Your task to perform on an android device: Go to Android settings Image 0: 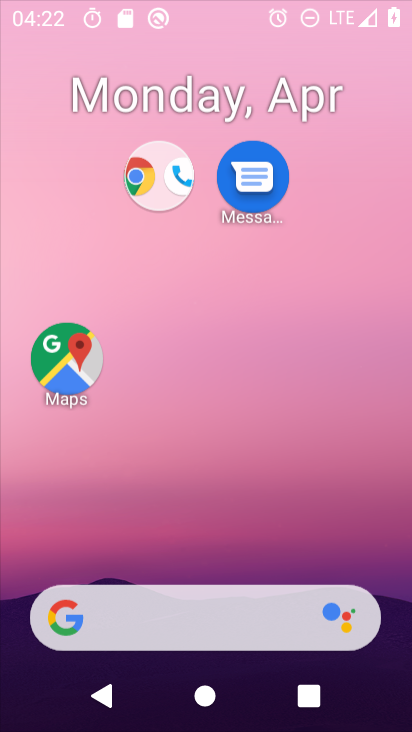
Step 0: drag from (263, 128) to (274, 34)
Your task to perform on an android device: Go to Android settings Image 1: 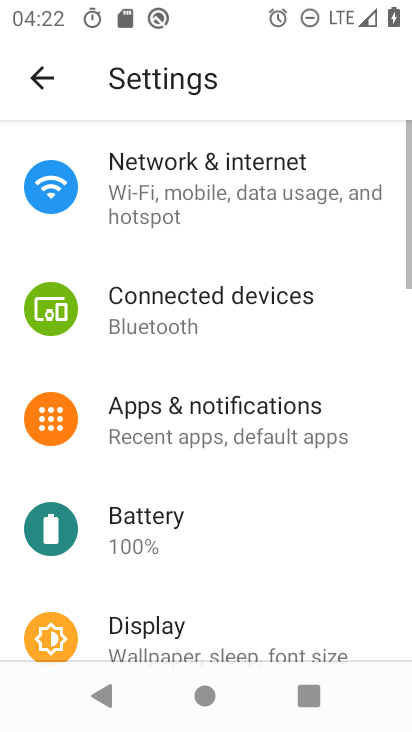
Step 1: press home button
Your task to perform on an android device: Go to Android settings Image 2: 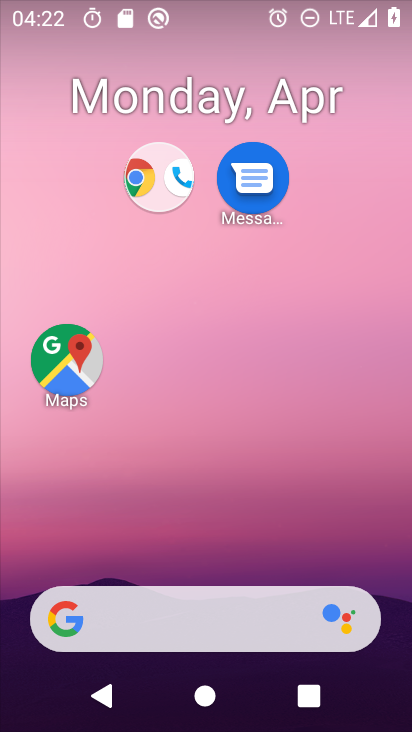
Step 2: drag from (267, 595) to (332, 5)
Your task to perform on an android device: Go to Android settings Image 3: 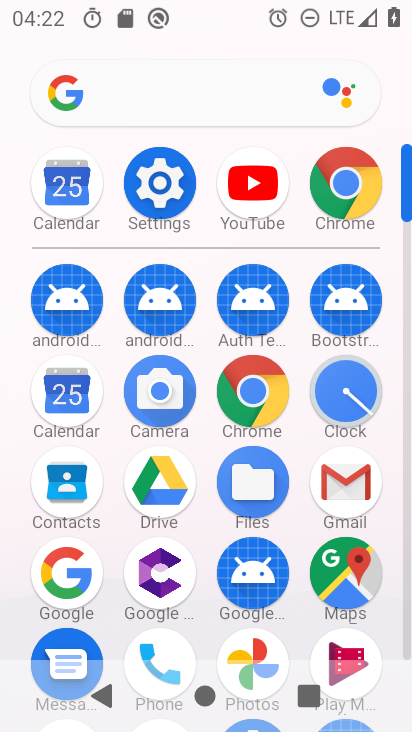
Step 3: click (269, 391)
Your task to perform on an android device: Go to Android settings Image 4: 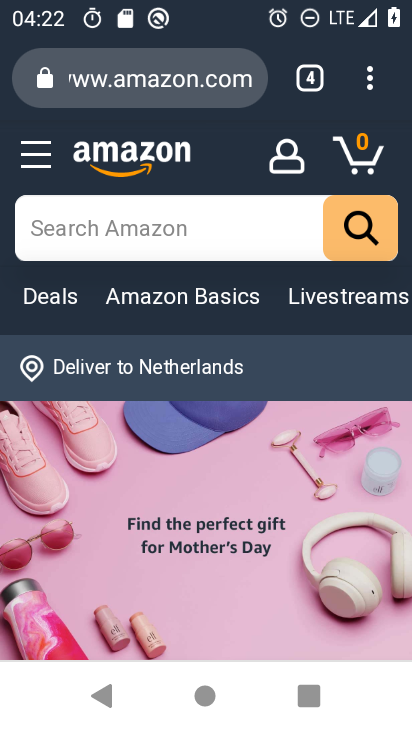
Step 4: press home button
Your task to perform on an android device: Go to Android settings Image 5: 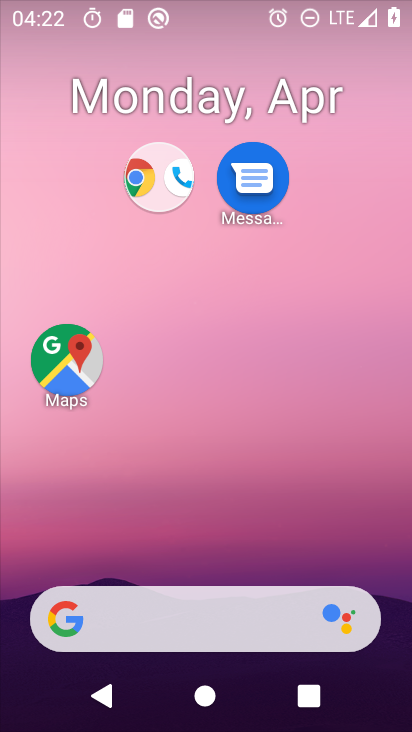
Step 5: drag from (256, 594) to (270, 53)
Your task to perform on an android device: Go to Android settings Image 6: 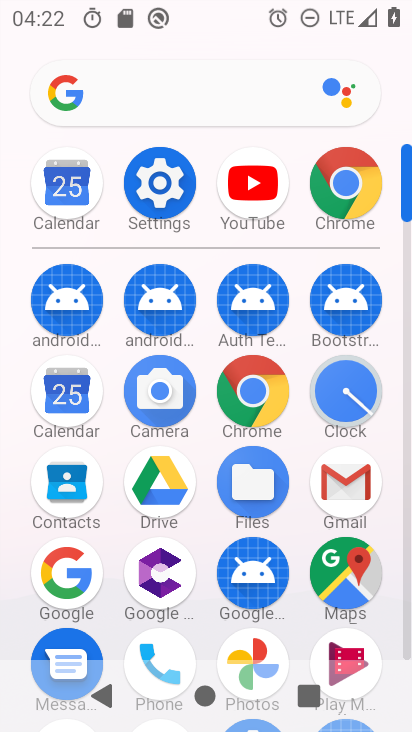
Step 6: drag from (290, 618) to (288, 71)
Your task to perform on an android device: Go to Android settings Image 7: 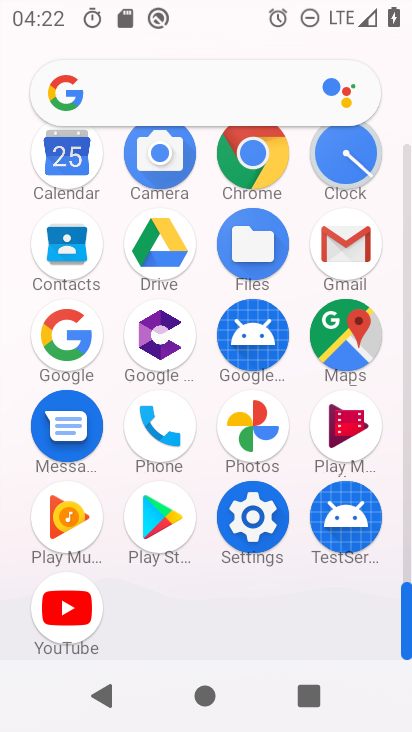
Step 7: click (255, 513)
Your task to perform on an android device: Go to Android settings Image 8: 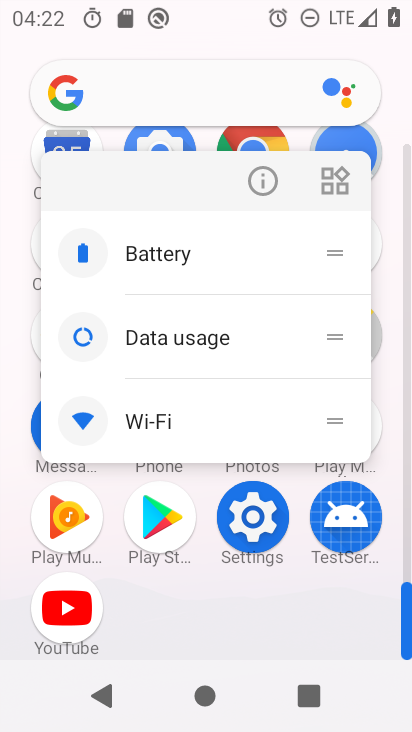
Step 8: click (255, 513)
Your task to perform on an android device: Go to Android settings Image 9: 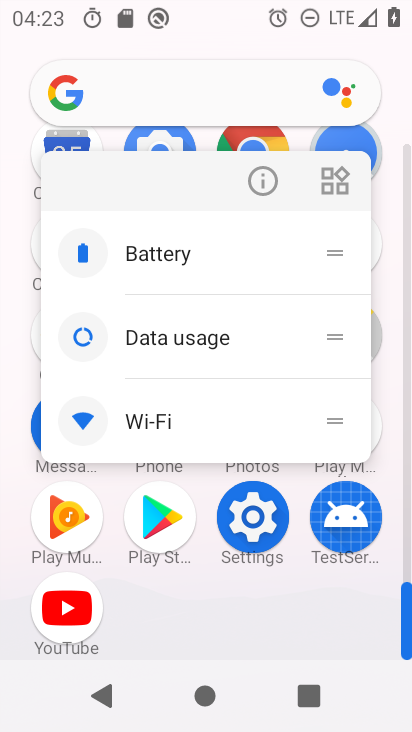
Step 9: click (255, 513)
Your task to perform on an android device: Go to Android settings Image 10: 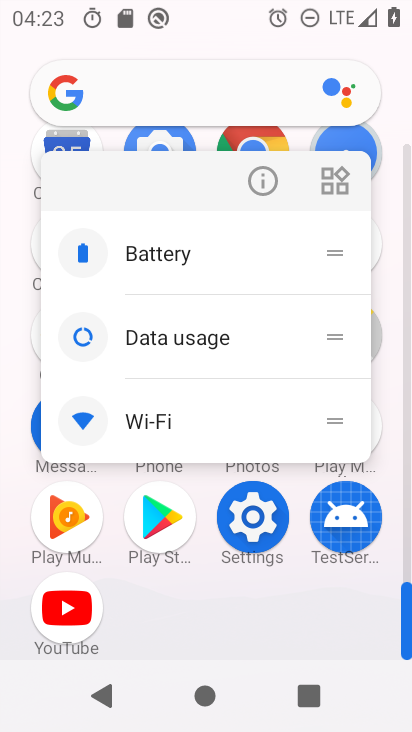
Step 10: click (255, 513)
Your task to perform on an android device: Go to Android settings Image 11: 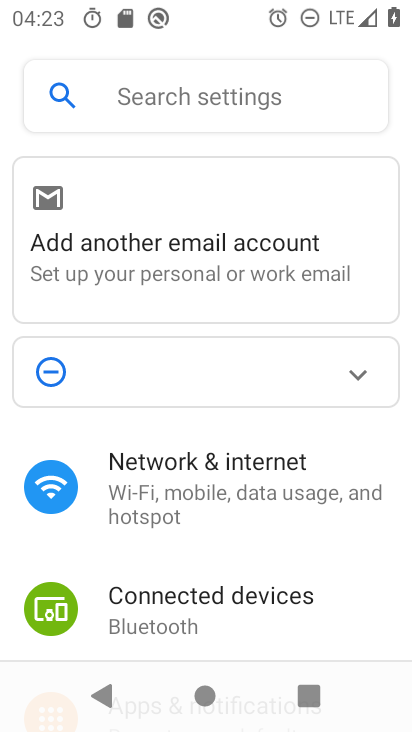
Step 11: drag from (225, 615) to (287, 57)
Your task to perform on an android device: Go to Android settings Image 12: 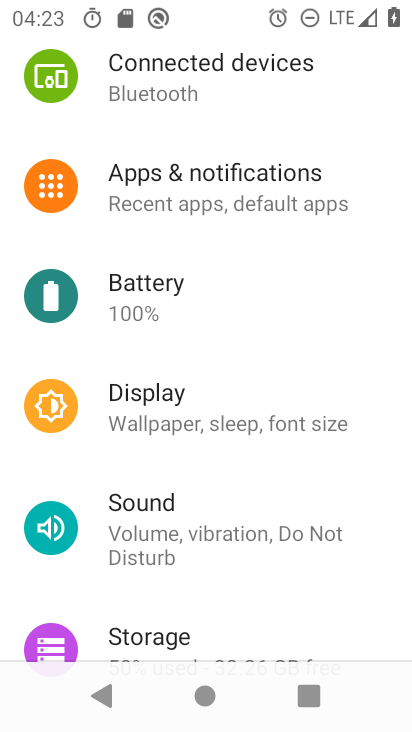
Step 12: drag from (294, 616) to (331, 90)
Your task to perform on an android device: Go to Android settings Image 13: 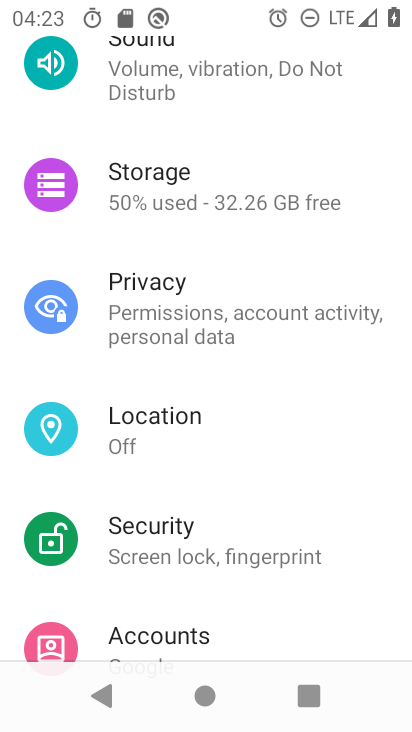
Step 13: drag from (254, 633) to (293, 29)
Your task to perform on an android device: Go to Android settings Image 14: 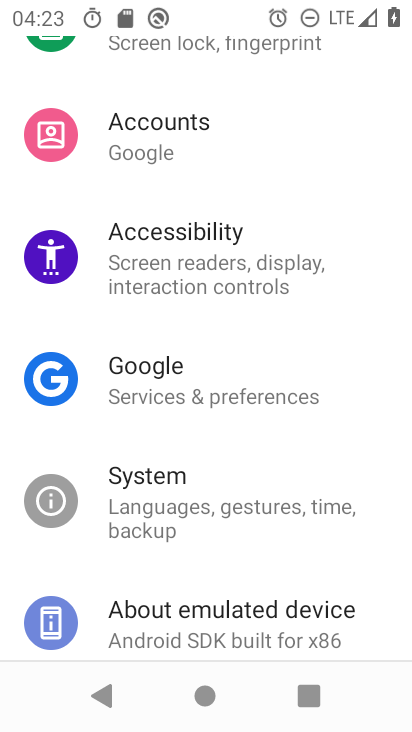
Step 14: click (255, 618)
Your task to perform on an android device: Go to Android settings Image 15: 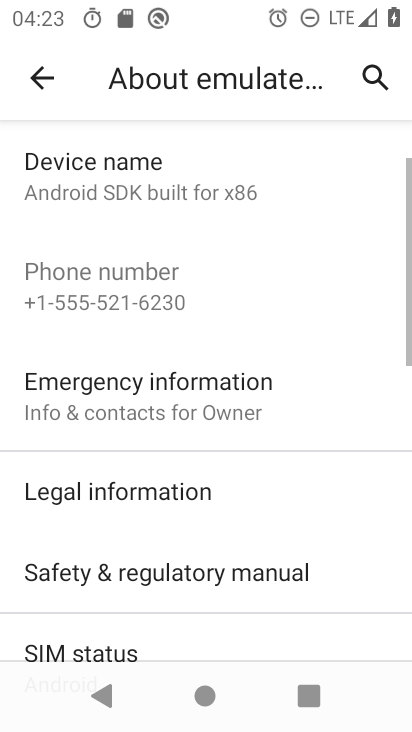
Step 15: drag from (247, 631) to (267, 66)
Your task to perform on an android device: Go to Android settings Image 16: 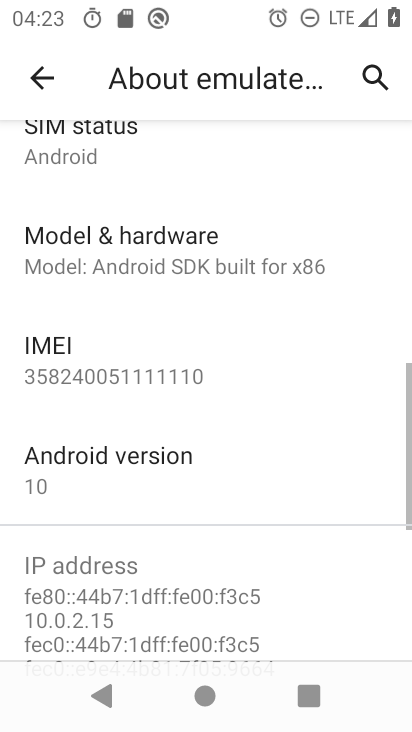
Step 16: click (131, 467)
Your task to perform on an android device: Go to Android settings Image 17: 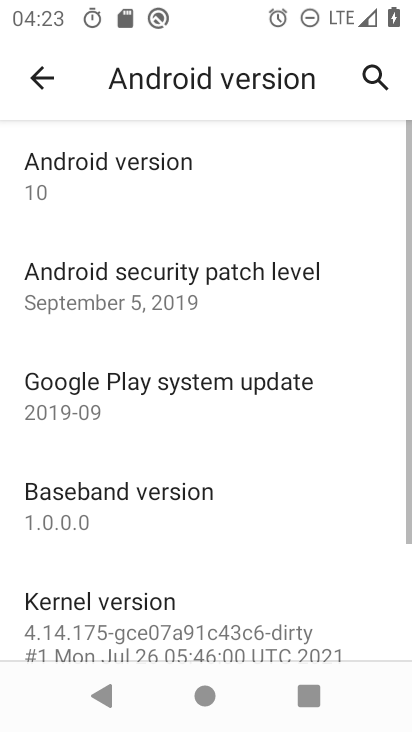
Step 17: task complete